Your task to perform on an android device: Empty the shopping cart on newegg.com. Add usb-a to usb-b to the cart on newegg.com Image 0: 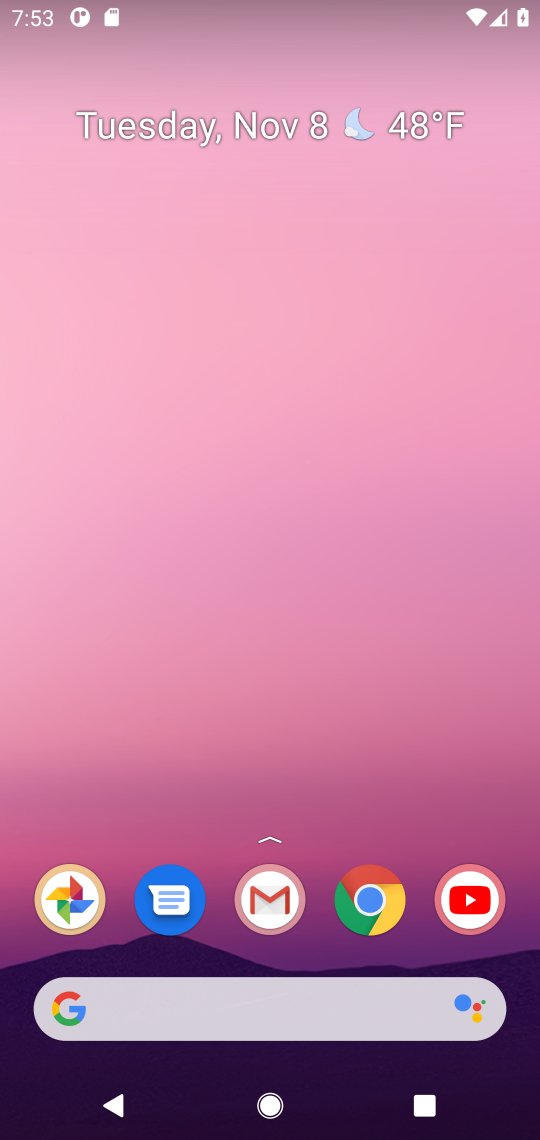
Step 0: drag from (261, 992) to (233, 689)
Your task to perform on an android device: Empty the shopping cart on newegg.com. Add usb-a to usb-b to the cart on newegg.com Image 1: 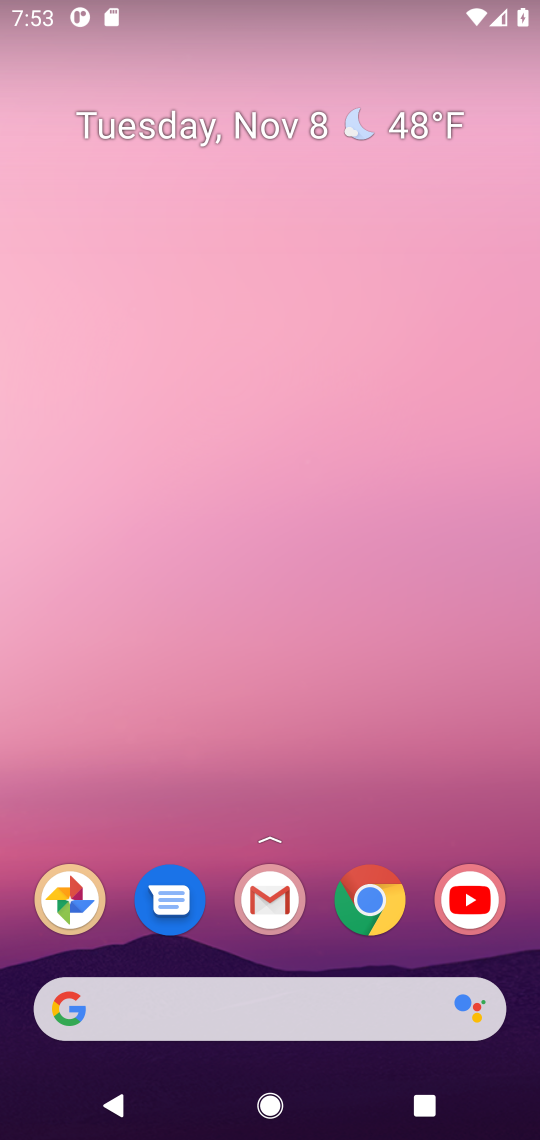
Step 1: drag from (246, 993) to (276, 241)
Your task to perform on an android device: Empty the shopping cart on newegg.com. Add usb-a to usb-b to the cart on newegg.com Image 2: 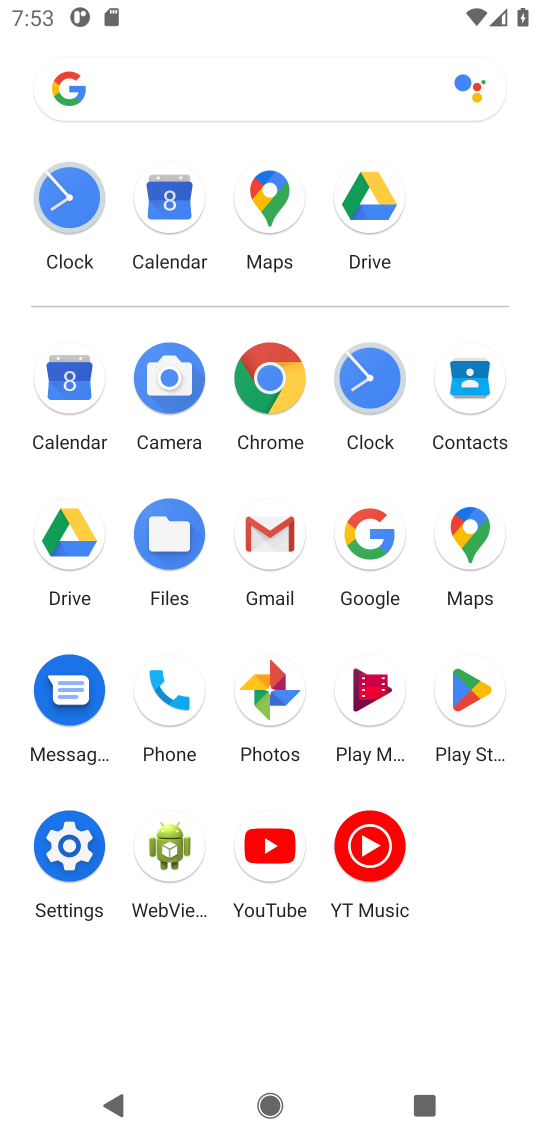
Step 2: click (388, 532)
Your task to perform on an android device: Empty the shopping cart on newegg.com. Add usb-a to usb-b to the cart on newegg.com Image 3: 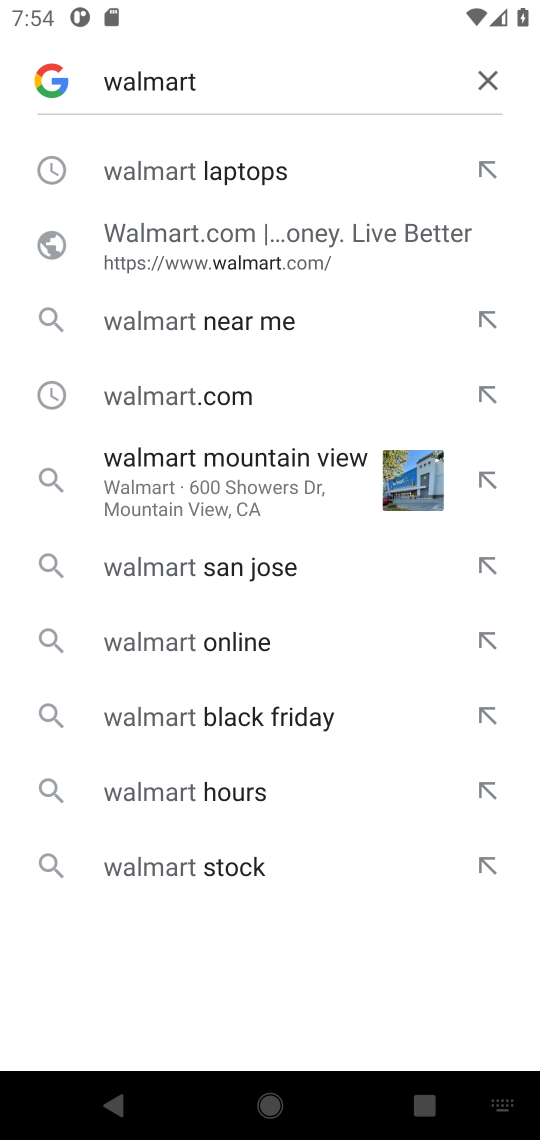
Step 3: click (475, 83)
Your task to perform on an android device: Empty the shopping cart on newegg.com. Add usb-a to usb-b to the cart on newegg.com Image 4: 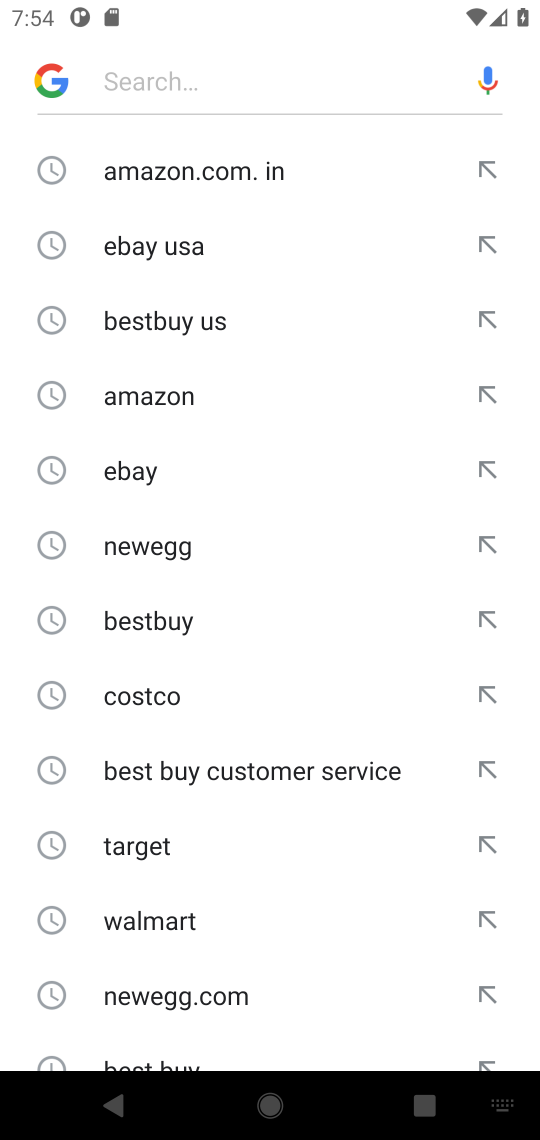
Step 4: click (196, 77)
Your task to perform on an android device: Empty the shopping cart on newegg.com. Add usb-a to usb-b to the cart on newegg.com Image 5: 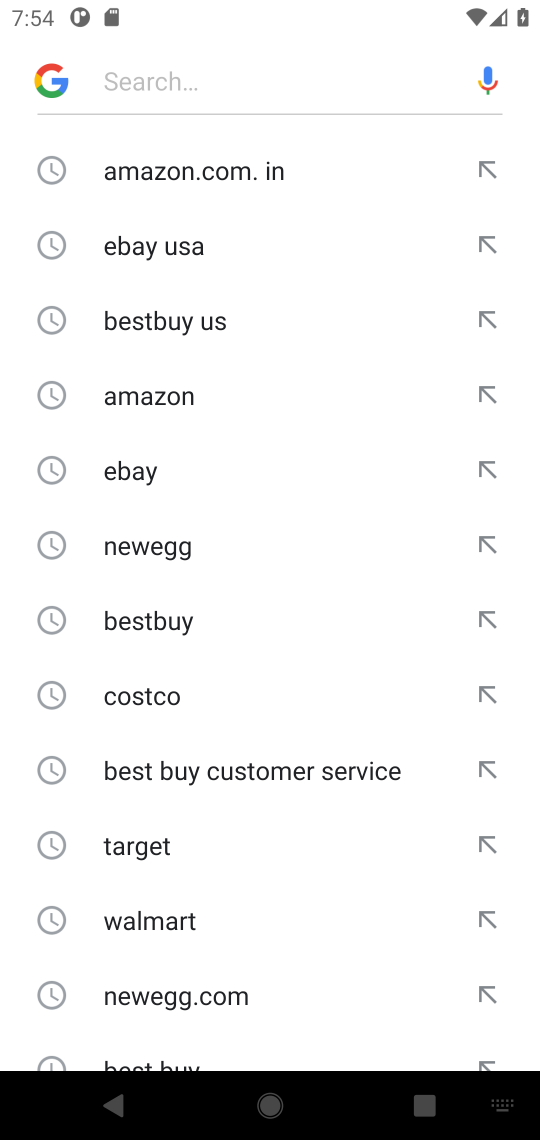
Step 5: type "newegg "
Your task to perform on an android device: Empty the shopping cart on newegg.com. Add usb-a to usb-b to the cart on newegg.com Image 6: 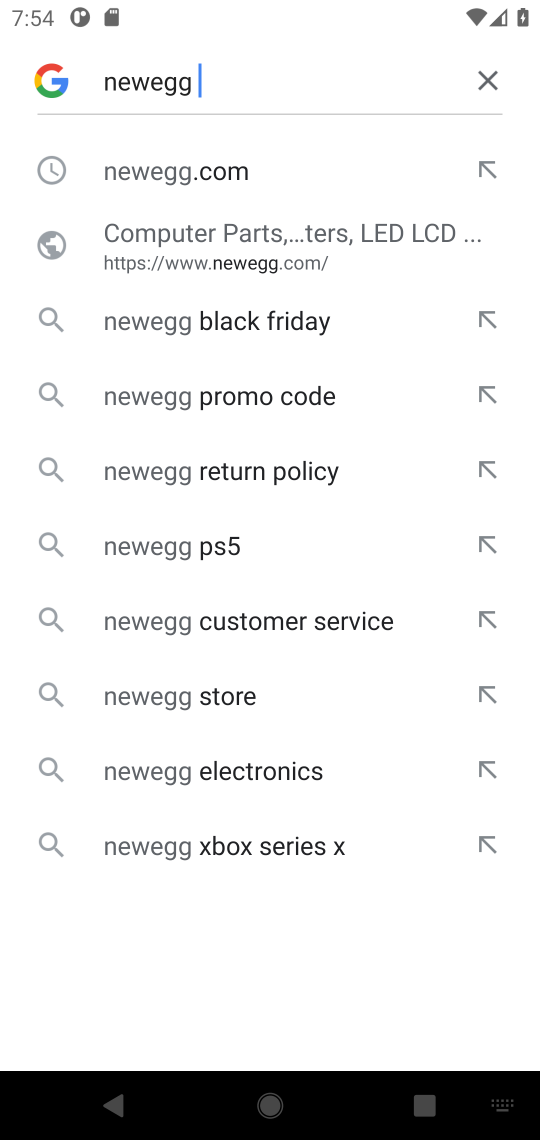
Step 6: click (168, 172)
Your task to perform on an android device: Empty the shopping cart on newegg.com. Add usb-a to usb-b to the cart on newegg.com Image 7: 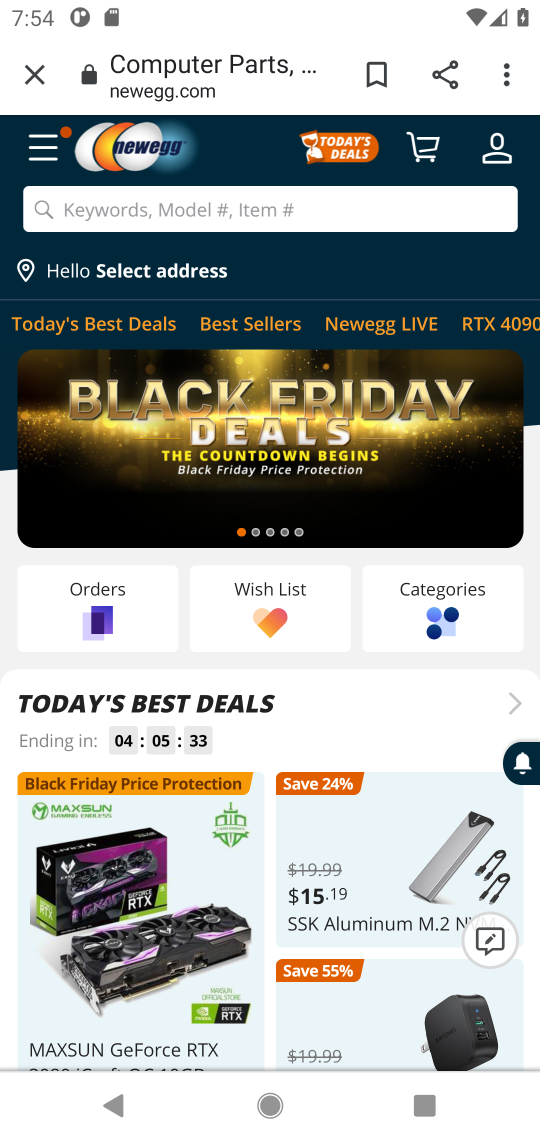
Step 7: click (226, 208)
Your task to perform on an android device: Empty the shopping cart on newegg.com. Add usb-a to usb-b to the cart on newegg.com Image 8: 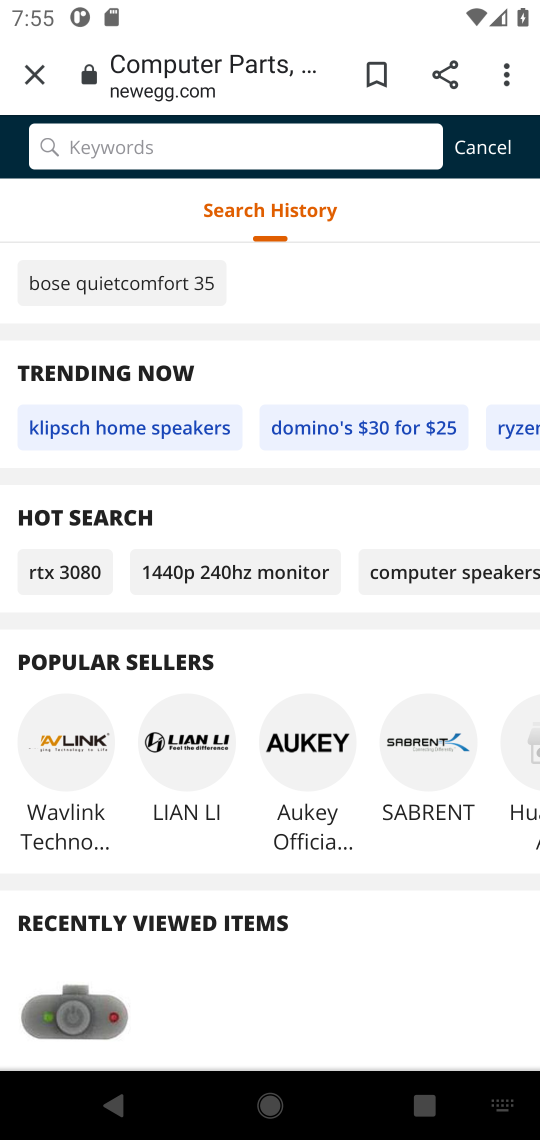
Step 8: click (310, 128)
Your task to perform on an android device: Empty the shopping cart on newegg.com. Add usb-a to usb-b to the cart on newegg.com Image 9: 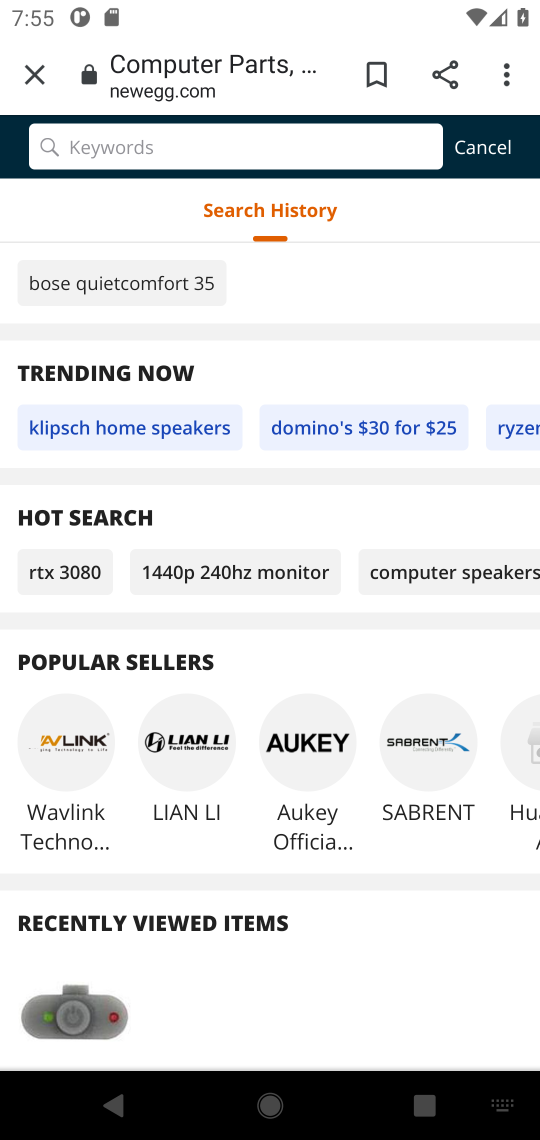
Step 9: type "usb-a to usb-b  "
Your task to perform on an android device: Empty the shopping cart on newegg.com. Add usb-a to usb-b to the cart on newegg.com Image 10: 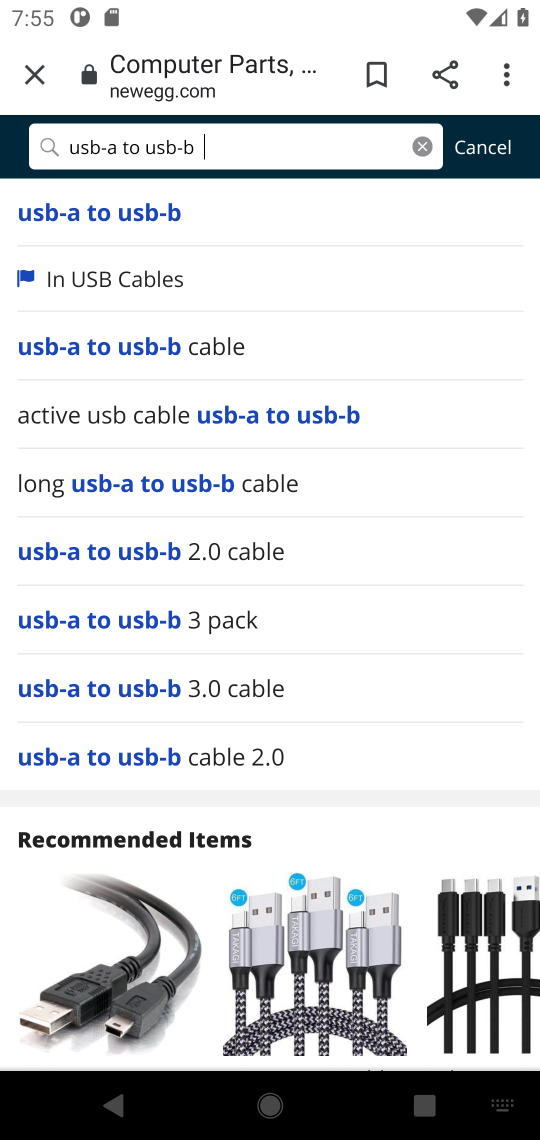
Step 10: click (150, 214)
Your task to perform on an android device: Empty the shopping cart on newegg.com. Add usb-a to usb-b to the cart on newegg.com Image 11: 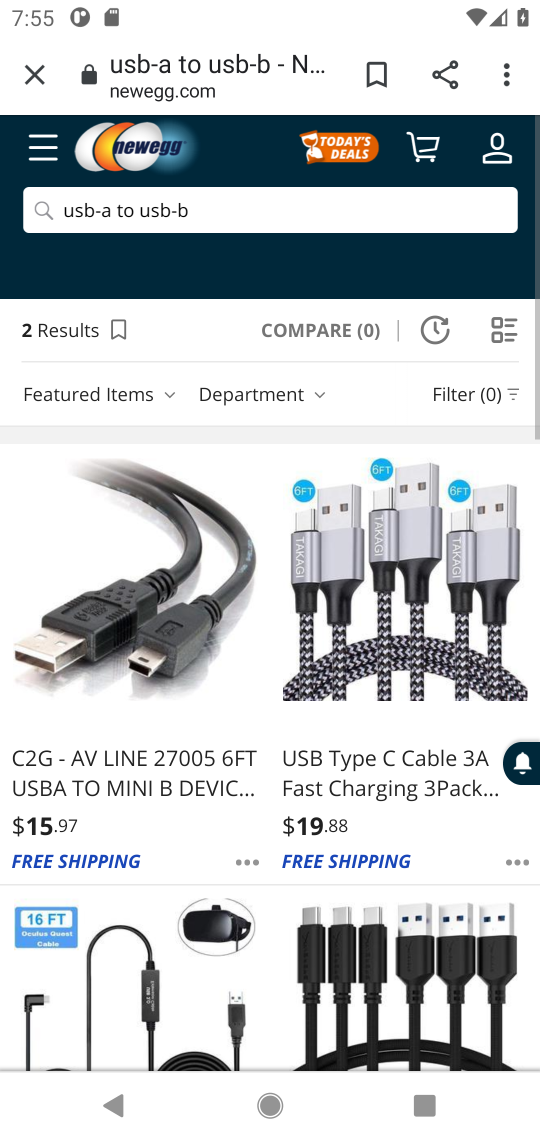
Step 11: click (121, 775)
Your task to perform on an android device: Empty the shopping cart on newegg.com. Add usb-a to usb-b to the cart on newegg.com Image 12: 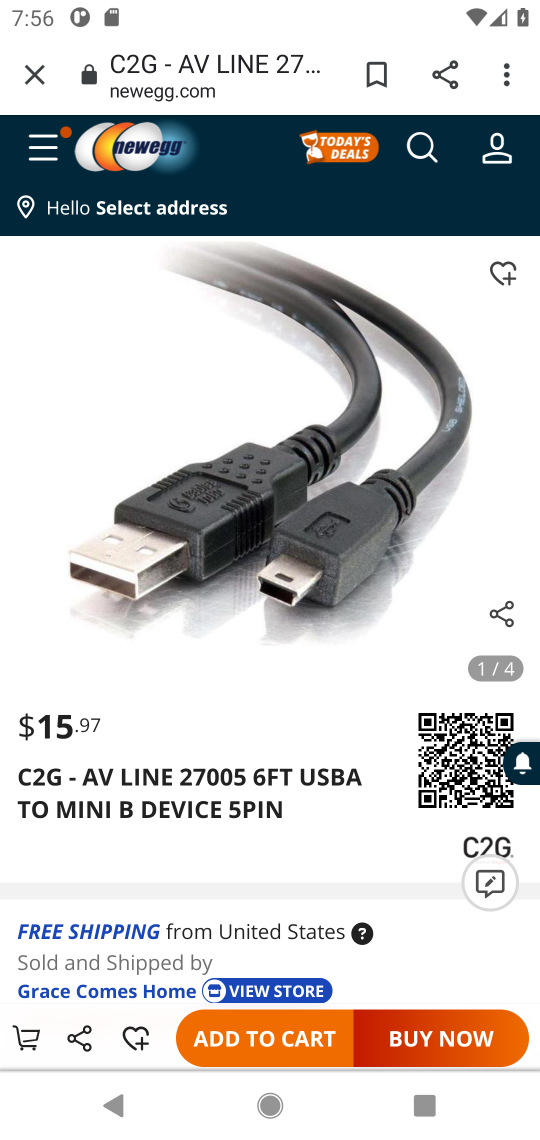
Step 12: click (235, 1032)
Your task to perform on an android device: Empty the shopping cart on newegg.com. Add usb-a to usb-b to the cart on newegg.com Image 13: 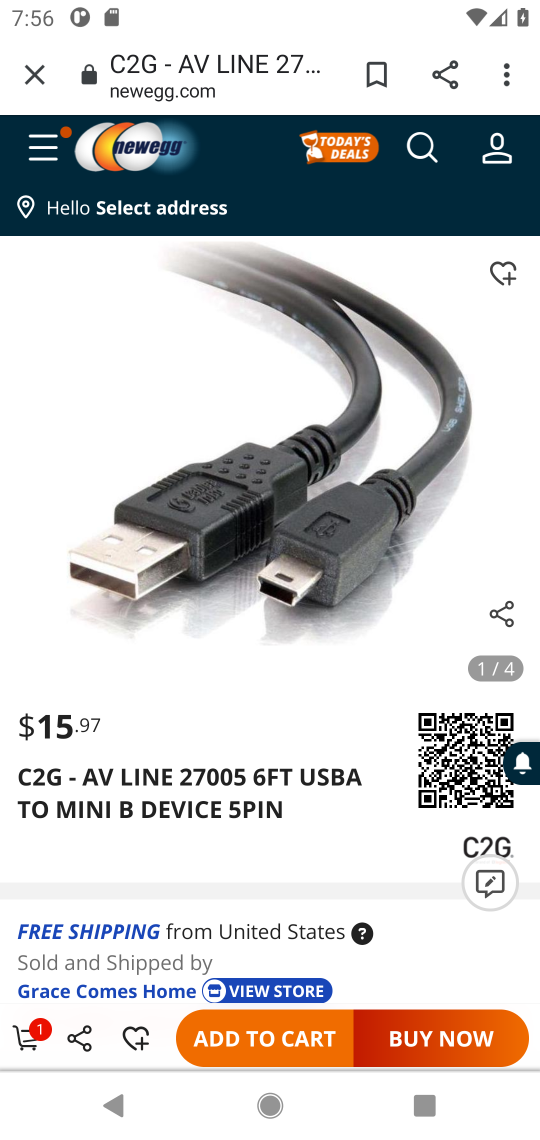
Step 13: click (251, 1052)
Your task to perform on an android device: Empty the shopping cart on newegg.com. Add usb-a to usb-b to the cart on newegg.com Image 14: 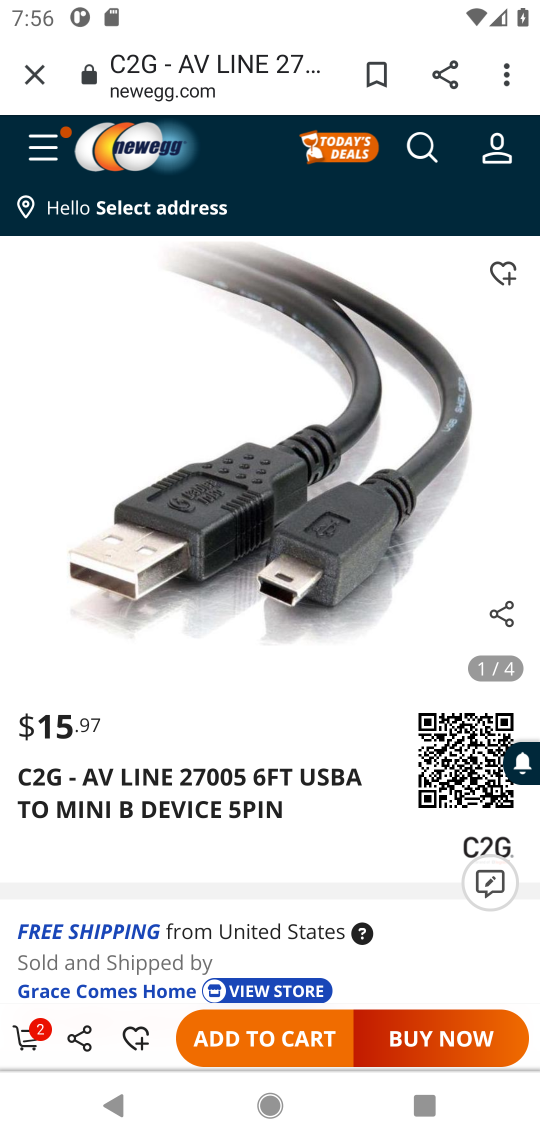
Step 14: click (250, 1024)
Your task to perform on an android device: Empty the shopping cart on newegg.com. Add usb-a to usb-b to the cart on newegg.com Image 15: 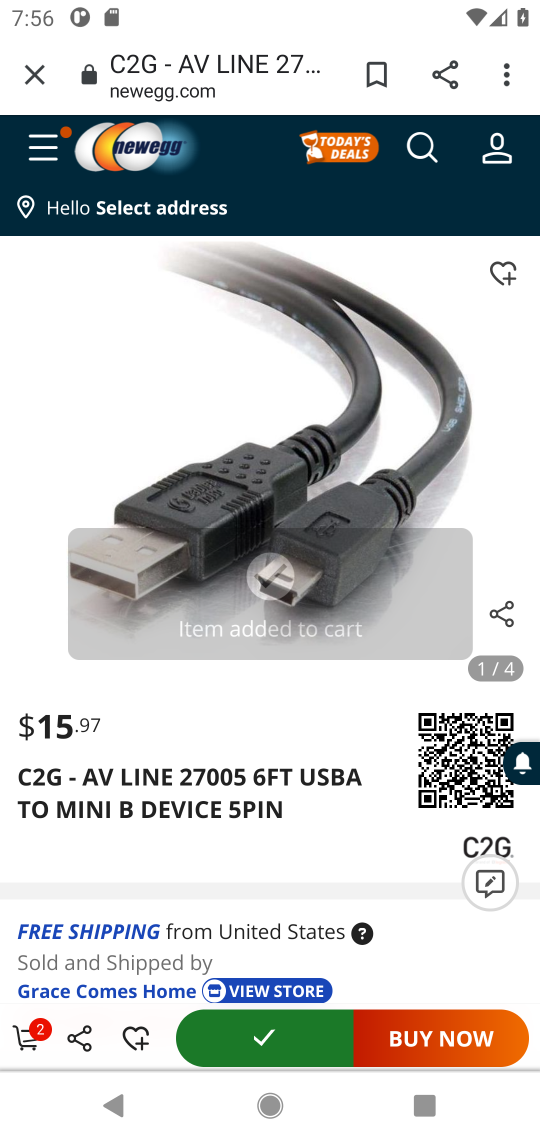
Step 15: task complete